Your task to perform on an android device: Check the news Image 0: 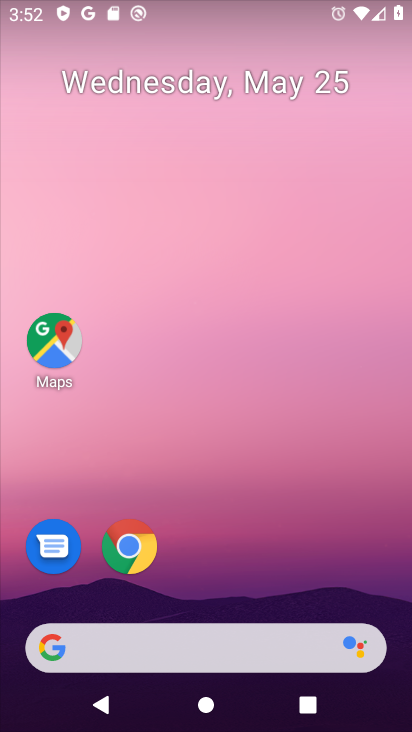
Step 0: click (132, 641)
Your task to perform on an android device: Check the news Image 1: 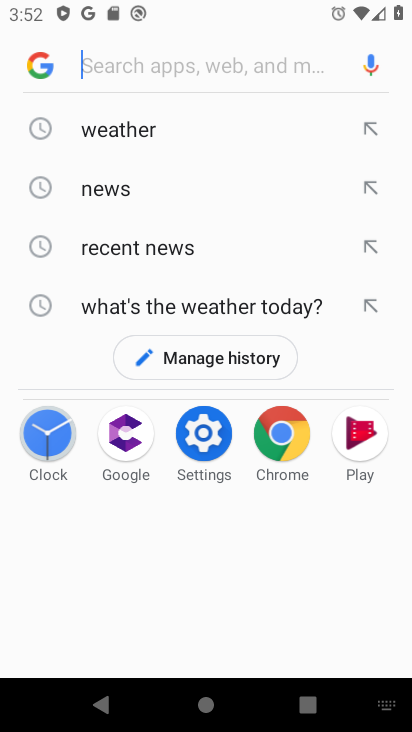
Step 1: type "news"
Your task to perform on an android device: Check the news Image 2: 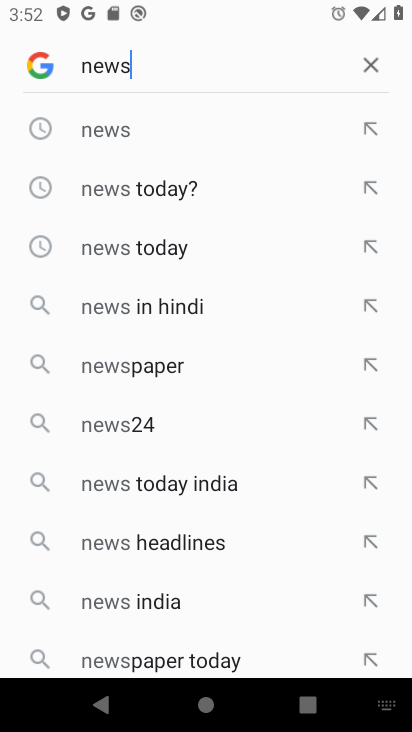
Step 2: click (156, 138)
Your task to perform on an android device: Check the news Image 3: 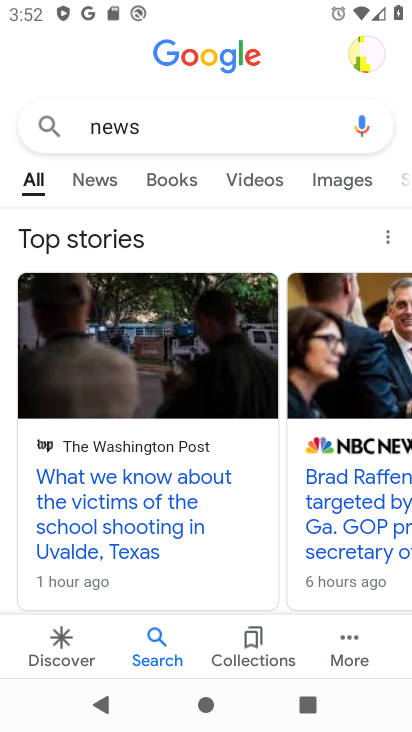
Step 3: click (93, 170)
Your task to perform on an android device: Check the news Image 4: 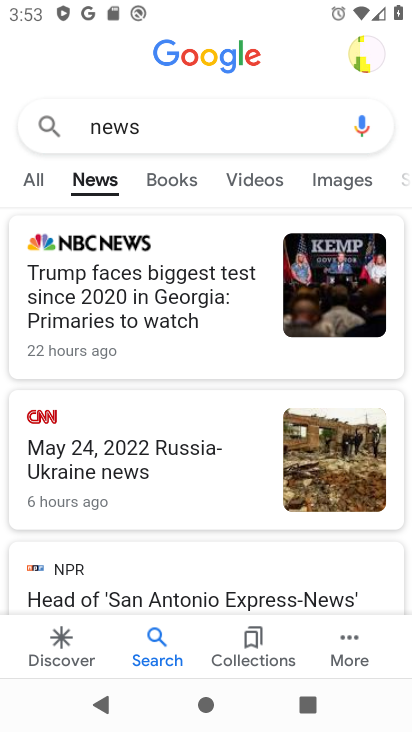
Step 4: task complete